Your task to perform on an android device: move an email to a new category in the gmail app Image 0: 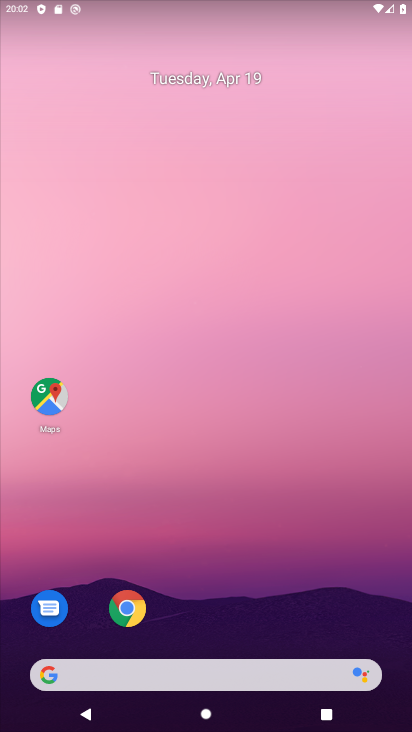
Step 0: drag from (215, 627) to (251, 76)
Your task to perform on an android device: move an email to a new category in the gmail app Image 1: 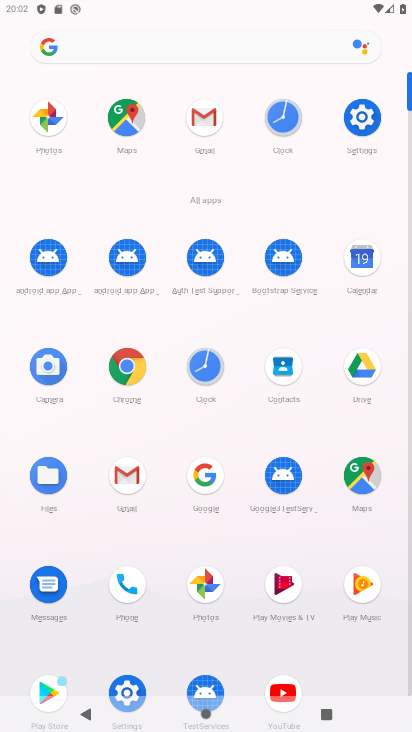
Step 1: click (203, 112)
Your task to perform on an android device: move an email to a new category in the gmail app Image 2: 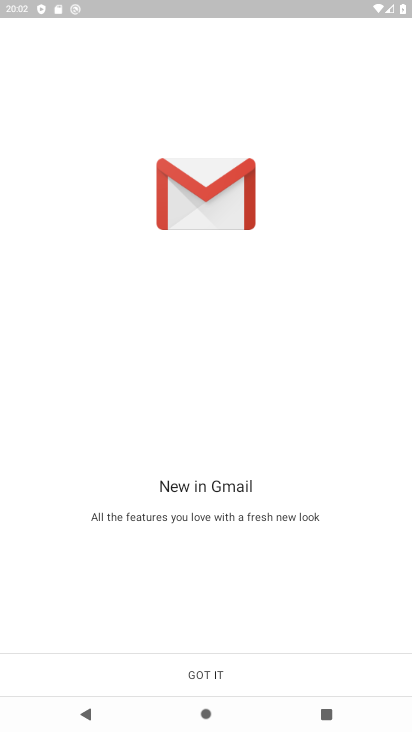
Step 2: click (218, 670)
Your task to perform on an android device: move an email to a new category in the gmail app Image 3: 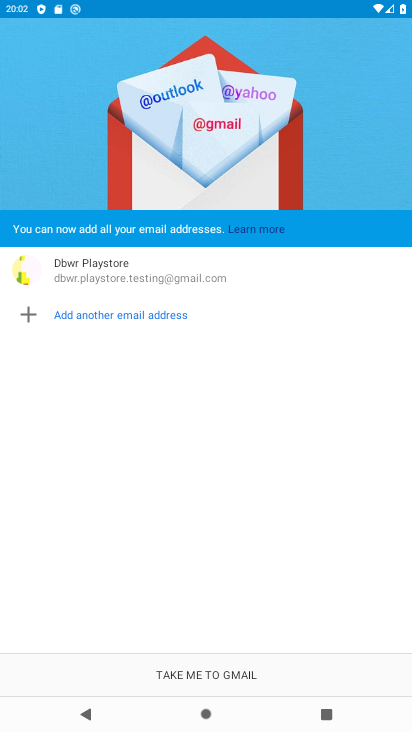
Step 3: click (218, 670)
Your task to perform on an android device: move an email to a new category in the gmail app Image 4: 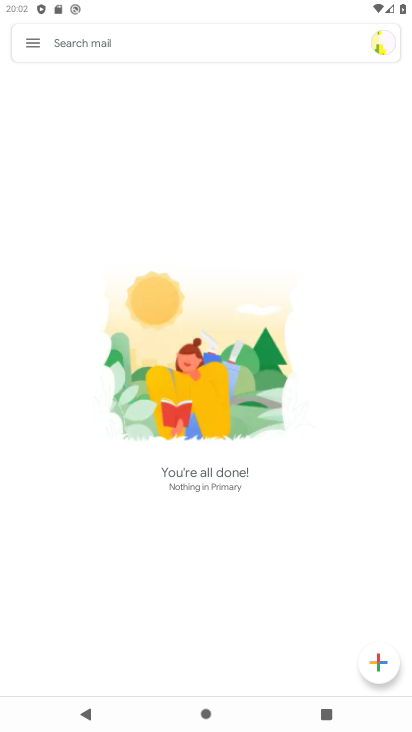
Step 4: click (29, 38)
Your task to perform on an android device: move an email to a new category in the gmail app Image 5: 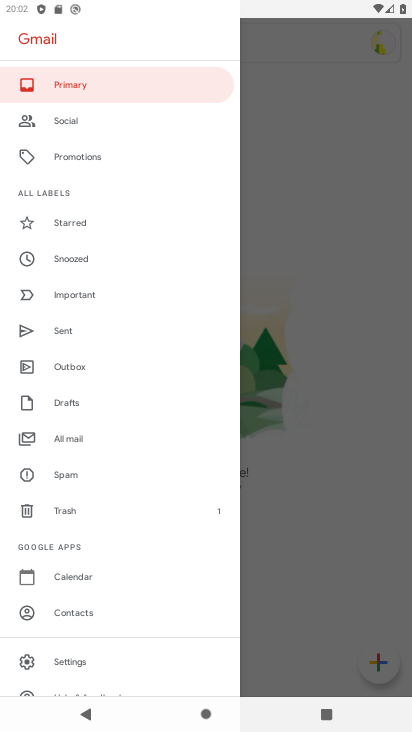
Step 5: click (74, 434)
Your task to perform on an android device: move an email to a new category in the gmail app Image 6: 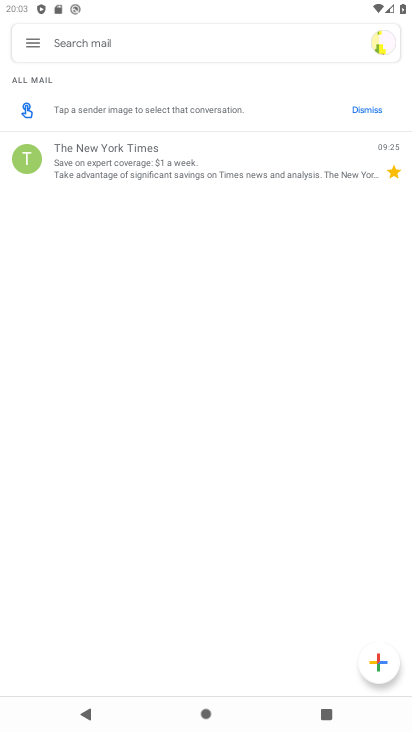
Step 6: click (130, 171)
Your task to perform on an android device: move an email to a new category in the gmail app Image 7: 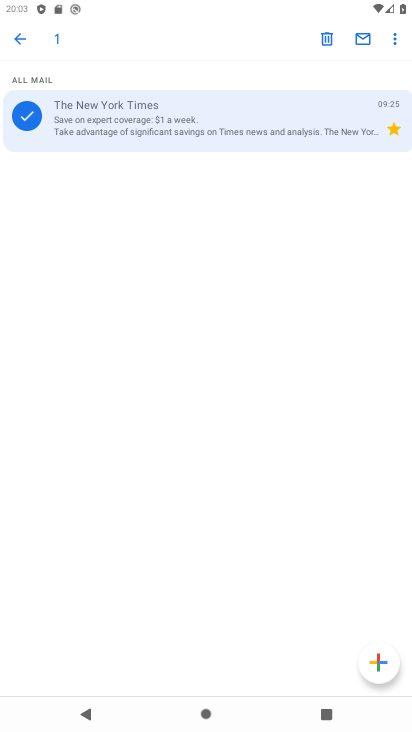
Step 7: click (394, 41)
Your task to perform on an android device: move an email to a new category in the gmail app Image 8: 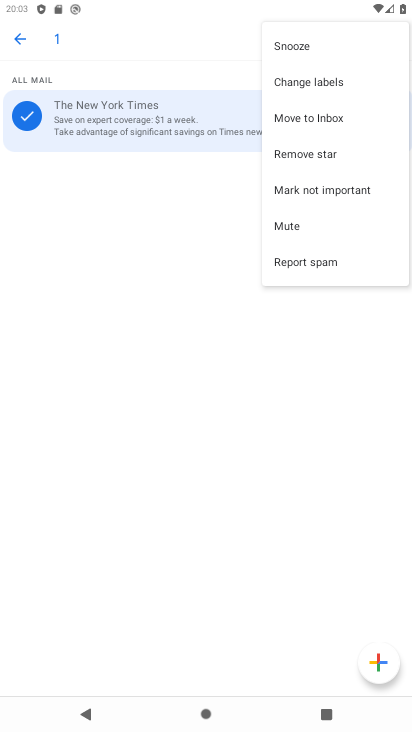
Step 8: click (326, 117)
Your task to perform on an android device: move an email to a new category in the gmail app Image 9: 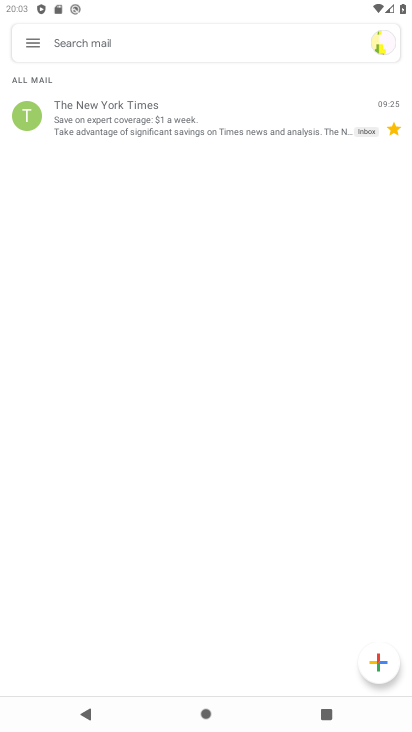
Step 9: task complete